Your task to perform on an android device: all mails in gmail Image 0: 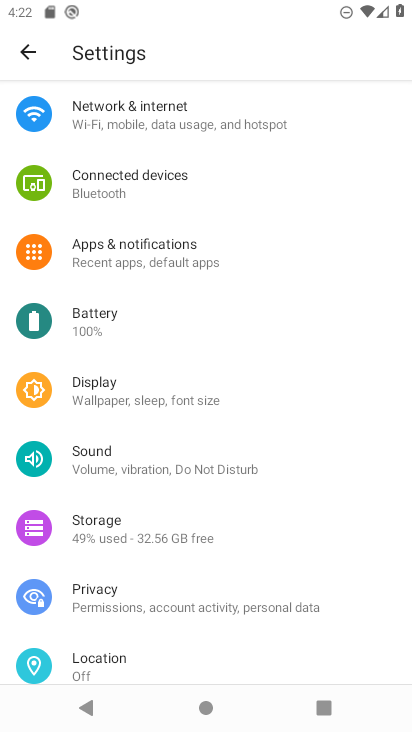
Step 0: press home button
Your task to perform on an android device: all mails in gmail Image 1: 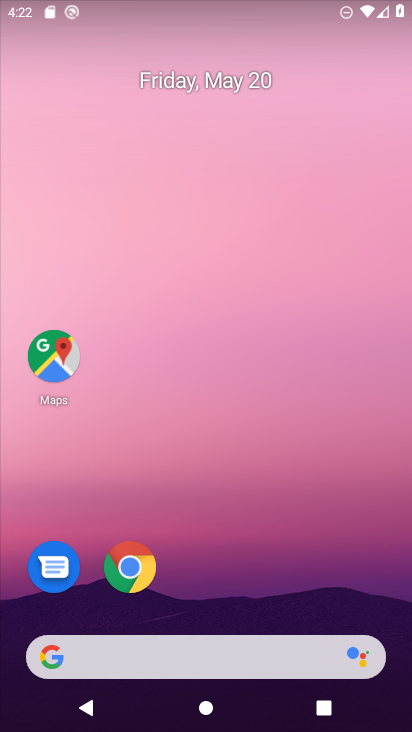
Step 1: drag from (232, 712) to (237, 184)
Your task to perform on an android device: all mails in gmail Image 2: 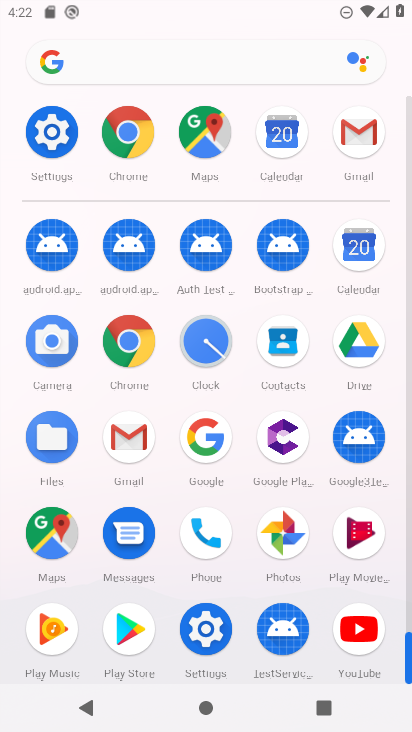
Step 2: click (131, 433)
Your task to perform on an android device: all mails in gmail Image 3: 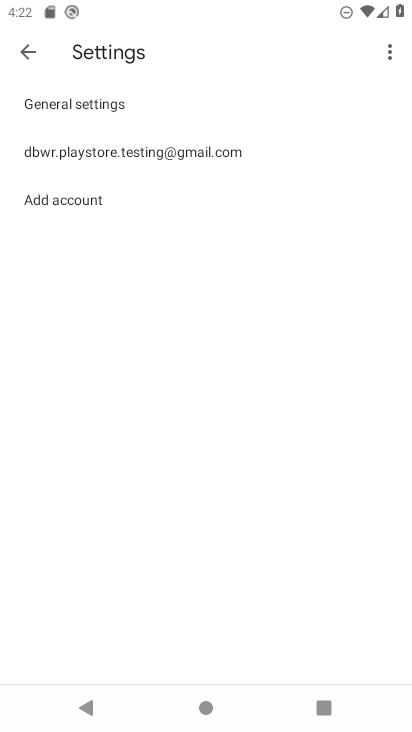
Step 3: click (24, 46)
Your task to perform on an android device: all mails in gmail Image 4: 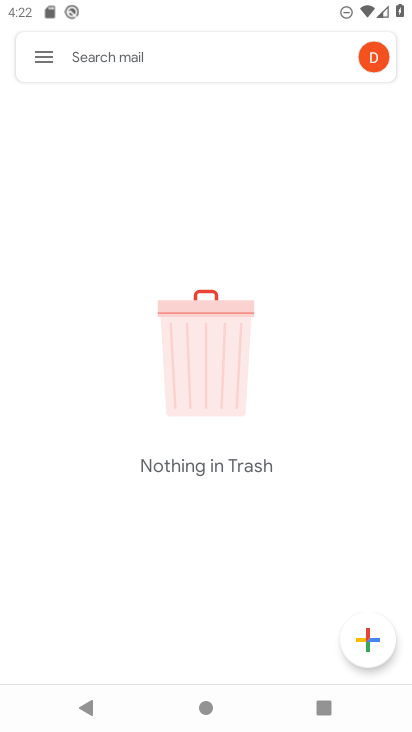
Step 4: click (37, 57)
Your task to perform on an android device: all mails in gmail Image 5: 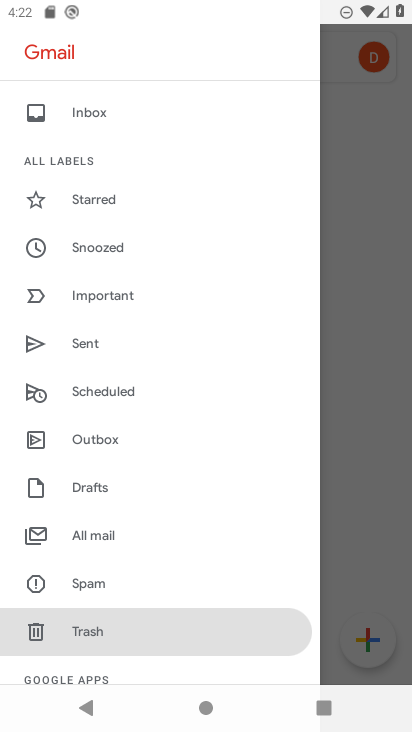
Step 5: click (110, 532)
Your task to perform on an android device: all mails in gmail Image 6: 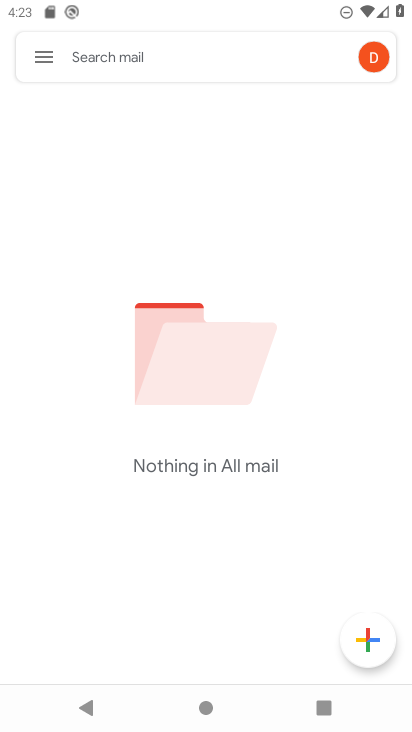
Step 6: task complete